Your task to perform on an android device: change text size in settings app Image 0: 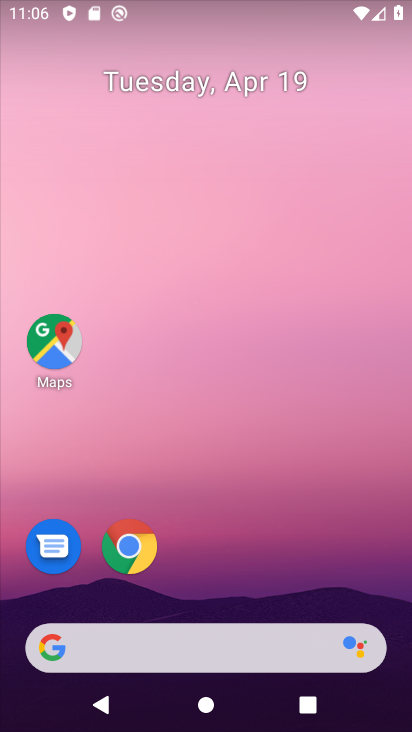
Step 0: drag from (308, 537) to (233, 31)
Your task to perform on an android device: change text size in settings app Image 1: 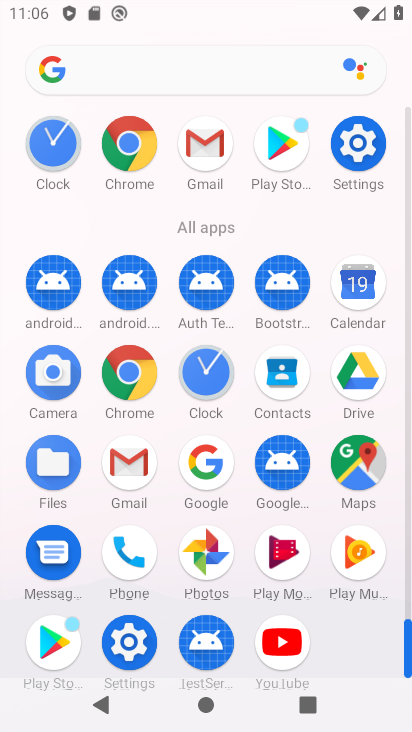
Step 1: click (356, 142)
Your task to perform on an android device: change text size in settings app Image 2: 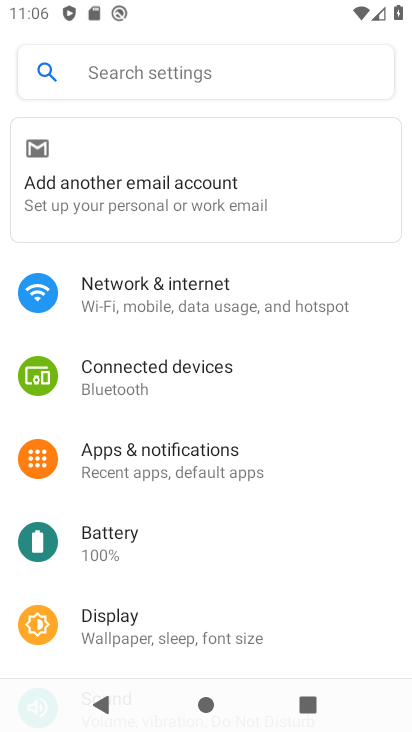
Step 2: click (211, 617)
Your task to perform on an android device: change text size in settings app Image 3: 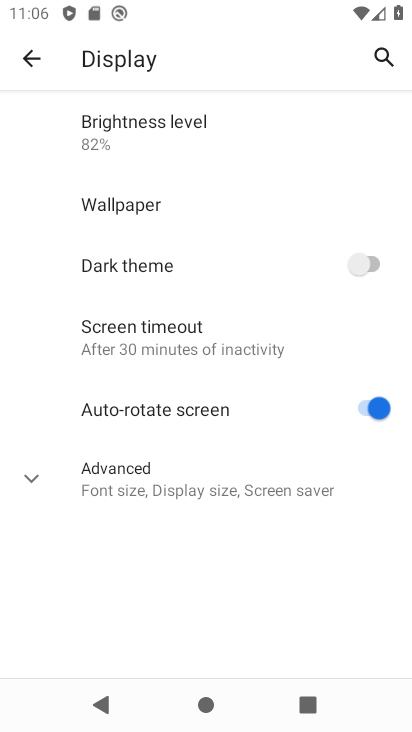
Step 3: click (60, 485)
Your task to perform on an android device: change text size in settings app Image 4: 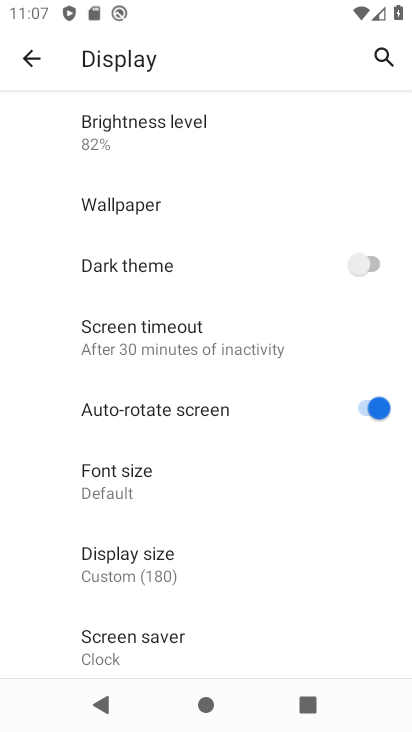
Step 4: click (144, 473)
Your task to perform on an android device: change text size in settings app Image 5: 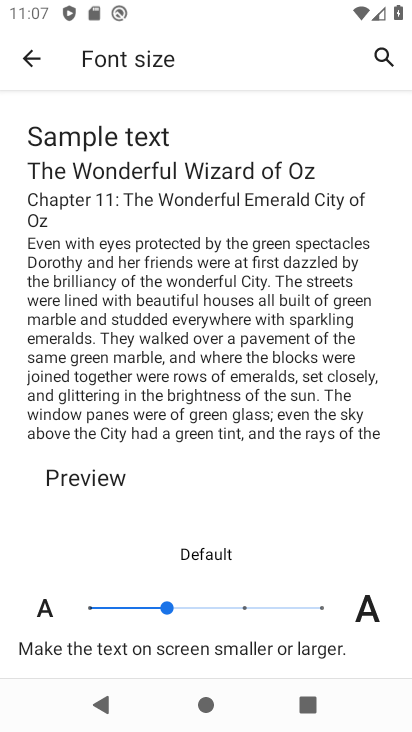
Step 5: click (313, 602)
Your task to perform on an android device: change text size in settings app Image 6: 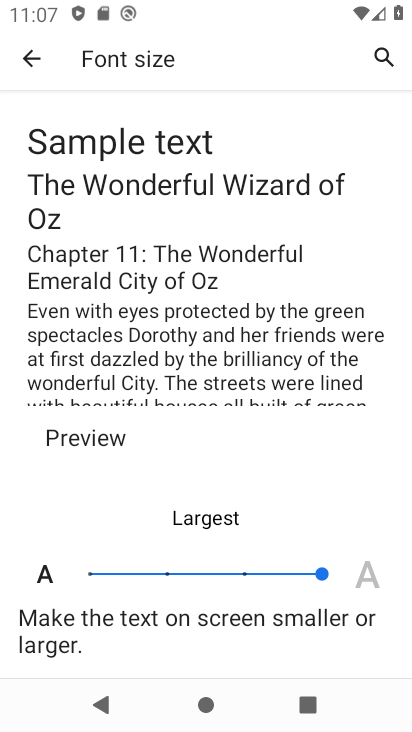
Step 6: task complete